Your task to perform on an android device: Open the Play Movies app and select the watchlist tab. Image 0: 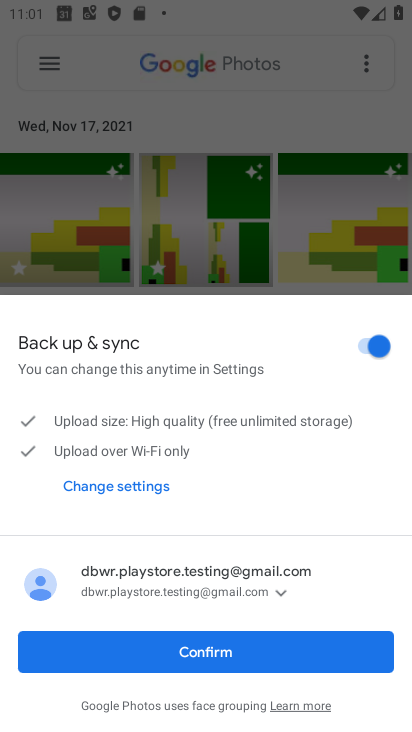
Step 0: click (177, 663)
Your task to perform on an android device: Open the Play Movies app and select the watchlist tab. Image 1: 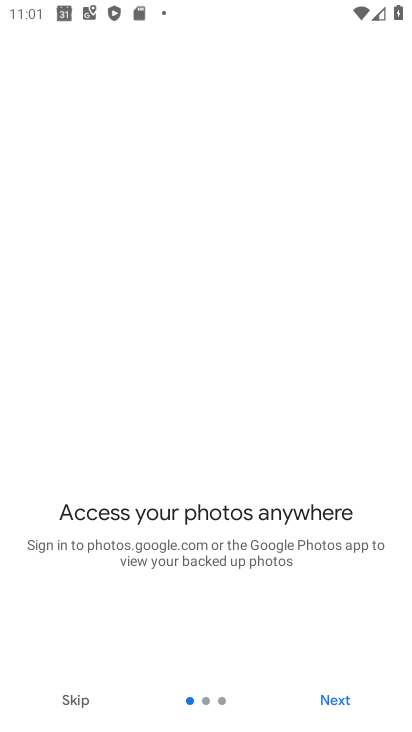
Step 1: press home button
Your task to perform on an android device: Open the Play Movies app and select the watchlist tab. Image 2: 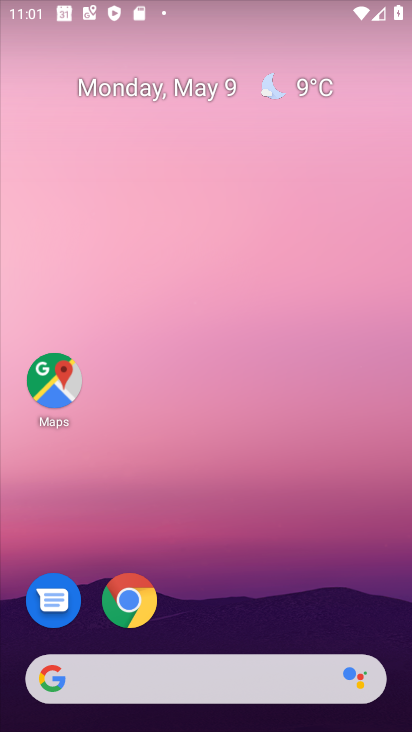
Step 2: drag from (285, 596) to (271, 213)
Your task to perform on an android device: Open the Play Movies app and select the watchlist tab. Image 3: 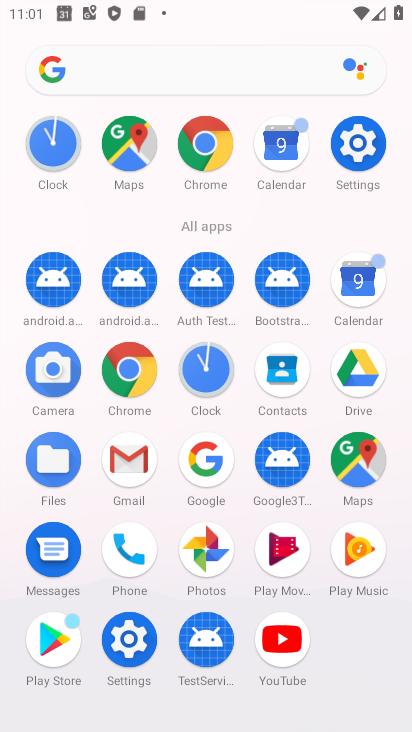
Step 3: click (276, 558)
Your task to perform on an android device: Open the Play Movies app and select the watchlist tab. Image 4: 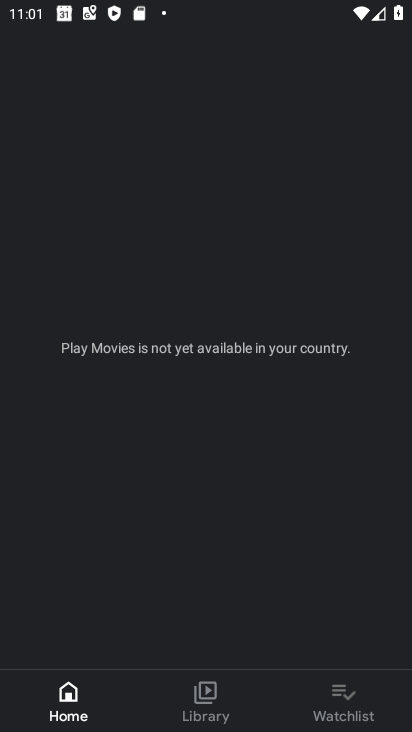
Step 4: click (334, 708)
Your task to perform on an android device: Open the Play Movies app and select the watchlist tab. Image 5: 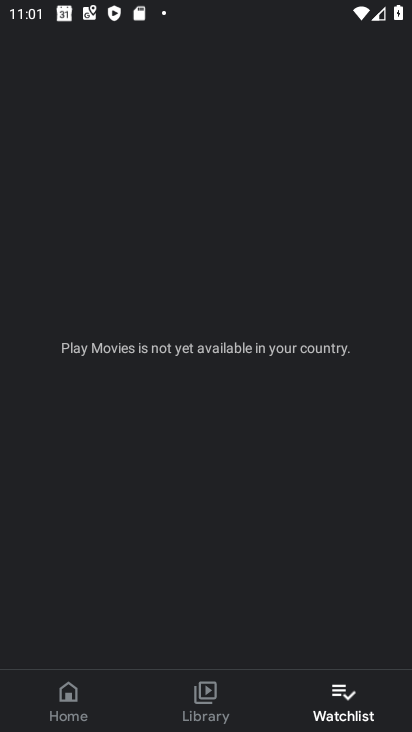
Step 5: task complete